Your task to perform on an android device: open app "DoorDash - Dasher" (install if not already installed), go to login, and select forgot password Image 0: 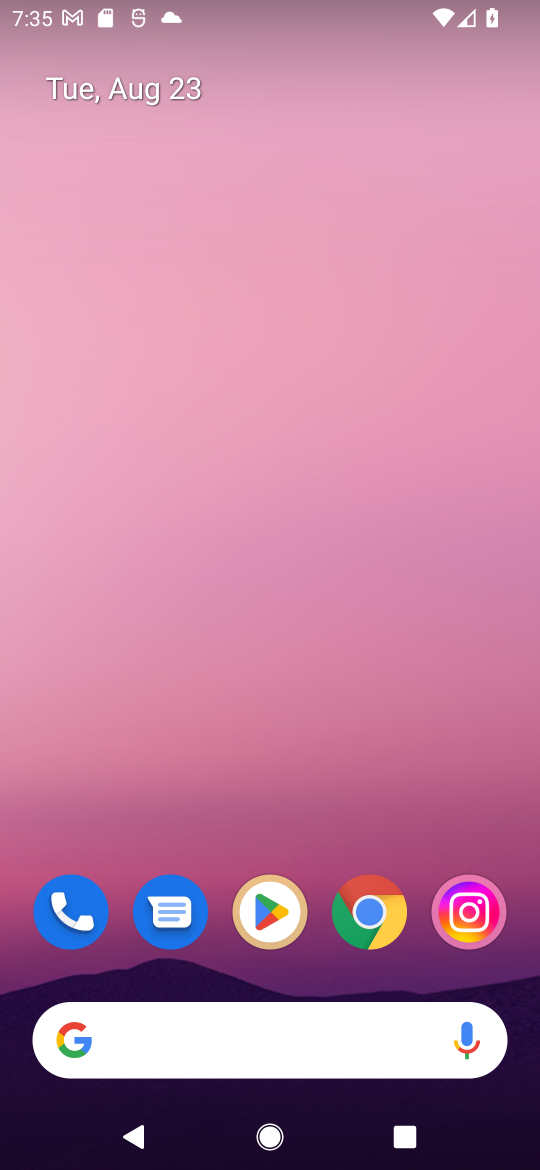
Step 0: click (265, 911)
Your task to perform on an android device: open app "DoorDash - Dasher" (install if not already installed), go to login, and select forgot password Image 1: 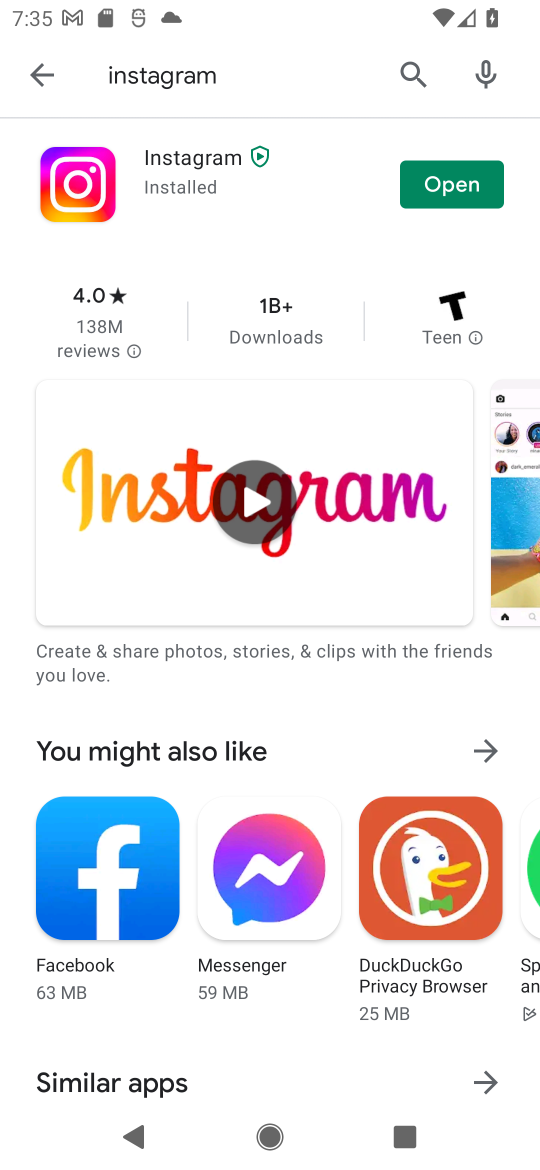
Step 1: click (408, 69)
Your task to perform on an android device: open app "DoorDash - Dasher" (install if not already installed), go to login, and select forgot password Image 2: 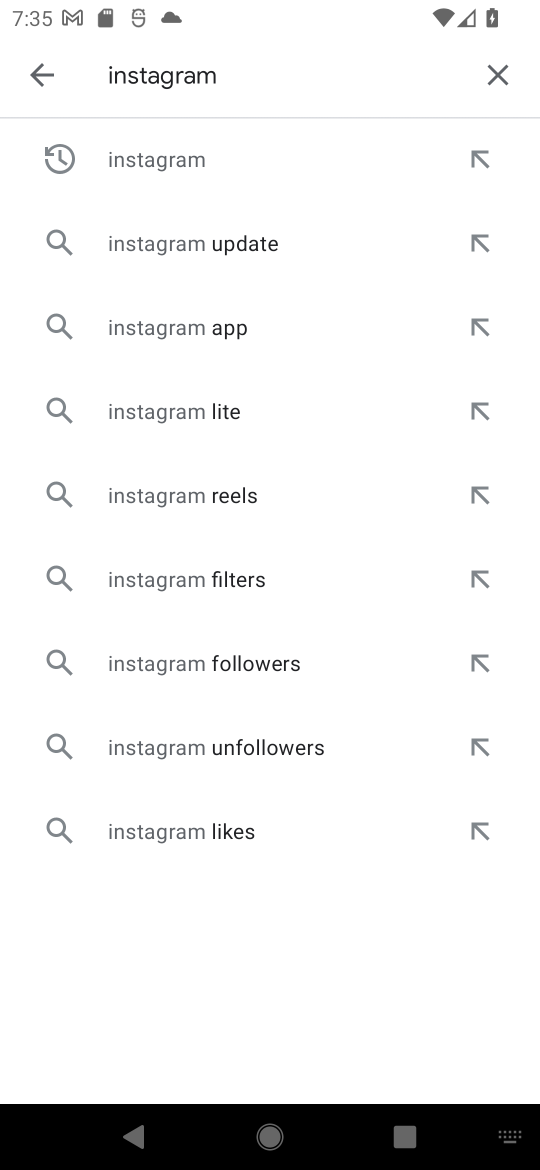
Step 2: click (502, 60)
Your task to perform on an android device: open app "DoorDash - Dasher" (install if not already installed), go to login, and select forgot password Image 3: 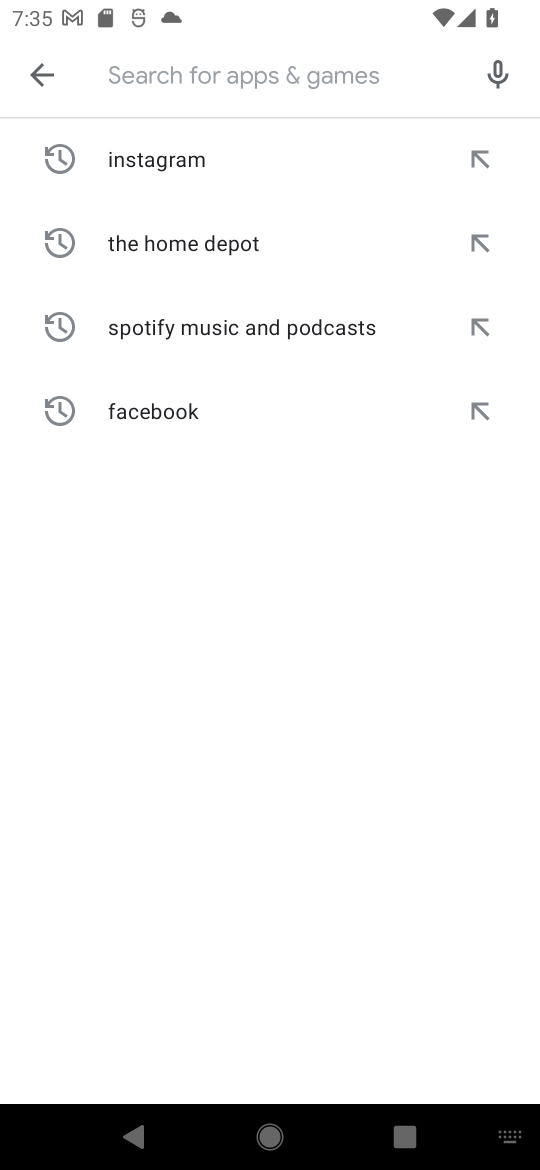
Step 3: type "DoorDash"
Your task to perform on an android device: open app "DoorDash - Dasher" (install if not already installed), go to login, and select forgot password Image 4: 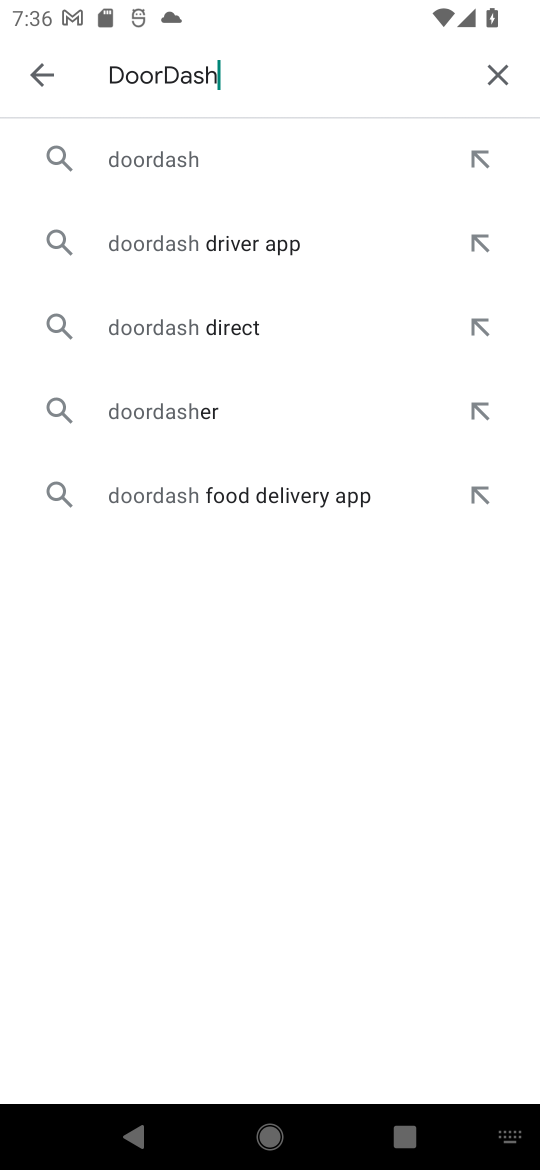
Step 4: type "- Dasher "
Your task to perform on an android device: open app "DoorDash - Dasher" (install if not already installed), go to login, and select forgot password Image 5: 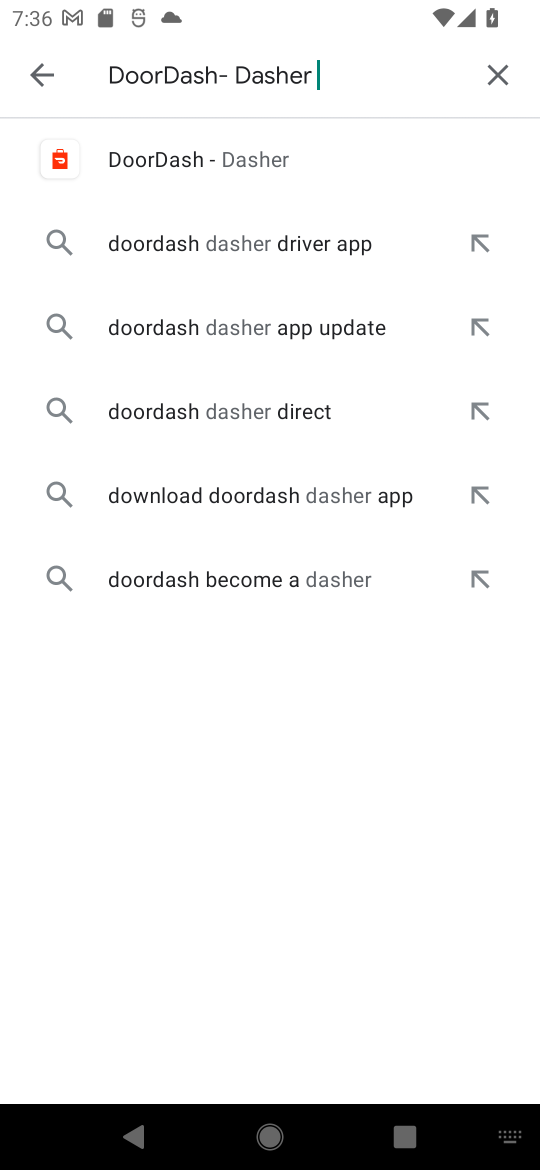
Step 5: click (256, 154)
Your task to perform on an android device: open app "DoorDash - Dasher" (install if not already installed), go to login, and select forgot password Image 6: 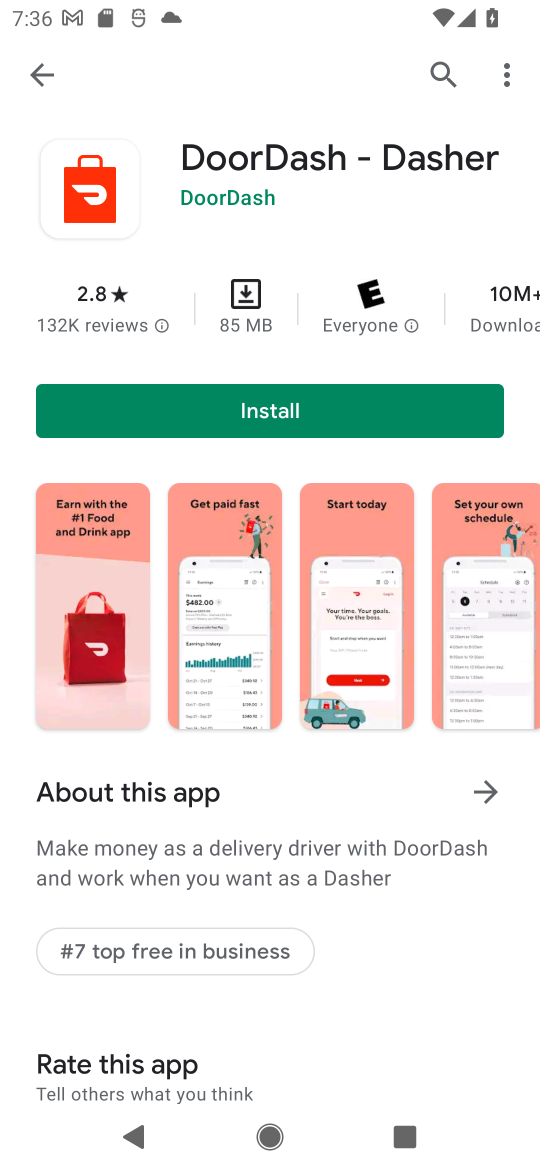
Step 6: click (269, 417)
Your task to perform on an android device: open app "DoorDash - Dasher" (install if not already installed), go to login, and select forgot password Image 7: 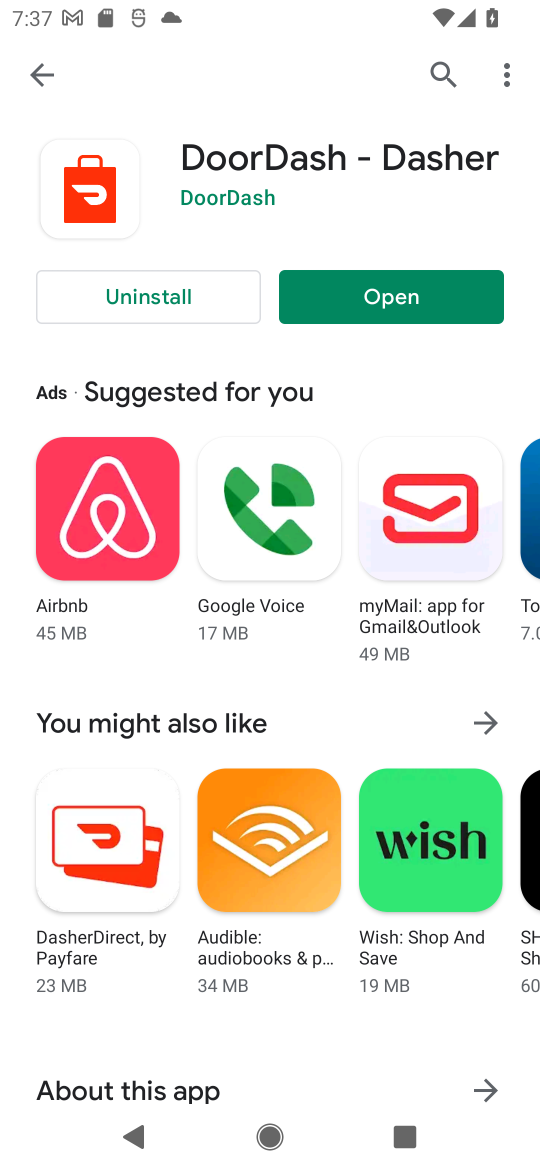
Step 7: click (377, 301)
Your task to perform on an android device: open app "DoorDash - Dasher" (install if not already installed), go to login, and select forgot password Image 8: 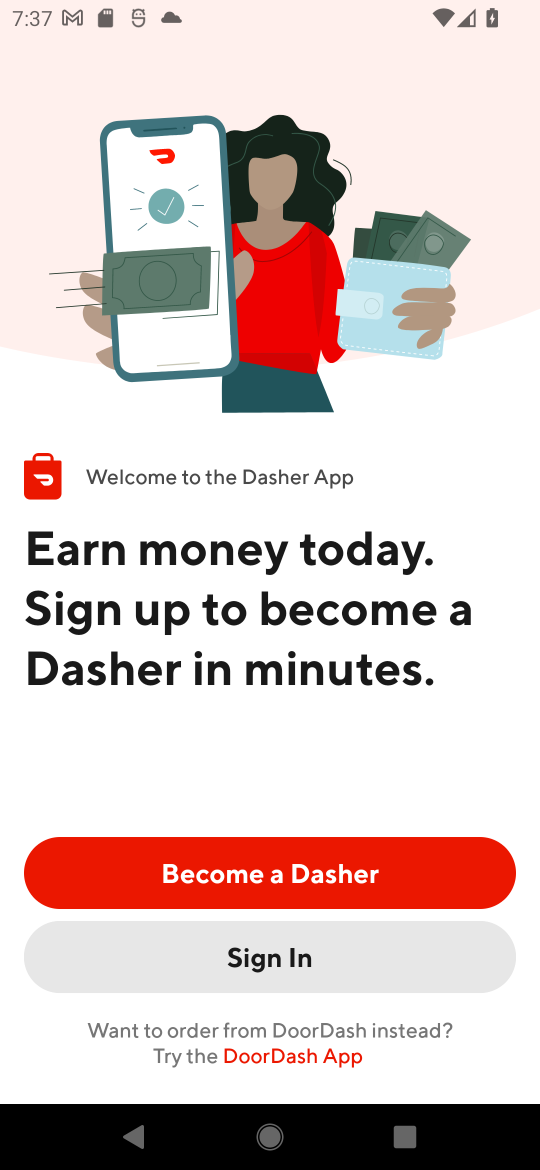
Step 8: click (262, 944)
Your task to perform on an android device: open app "DoorDash - Dasher" (install if not already installed), go to login, and select forgot password Image 9: 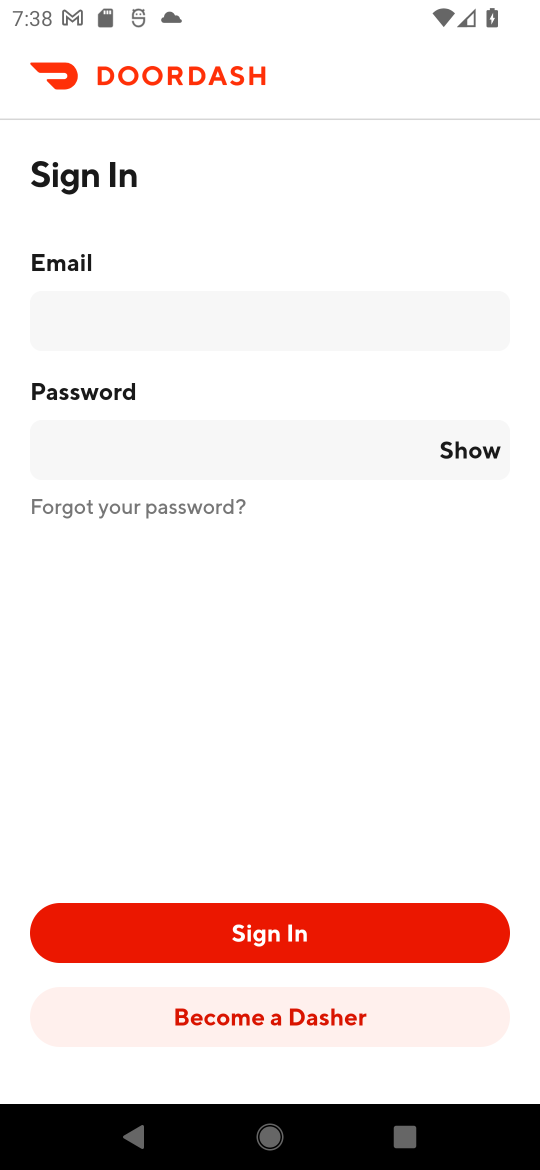
Step 9: click (143, 513)
Your task to perform on an android device: open app "DoorDash - Dasher" (install if not already installed), go to login, and select forgot password Image 10: 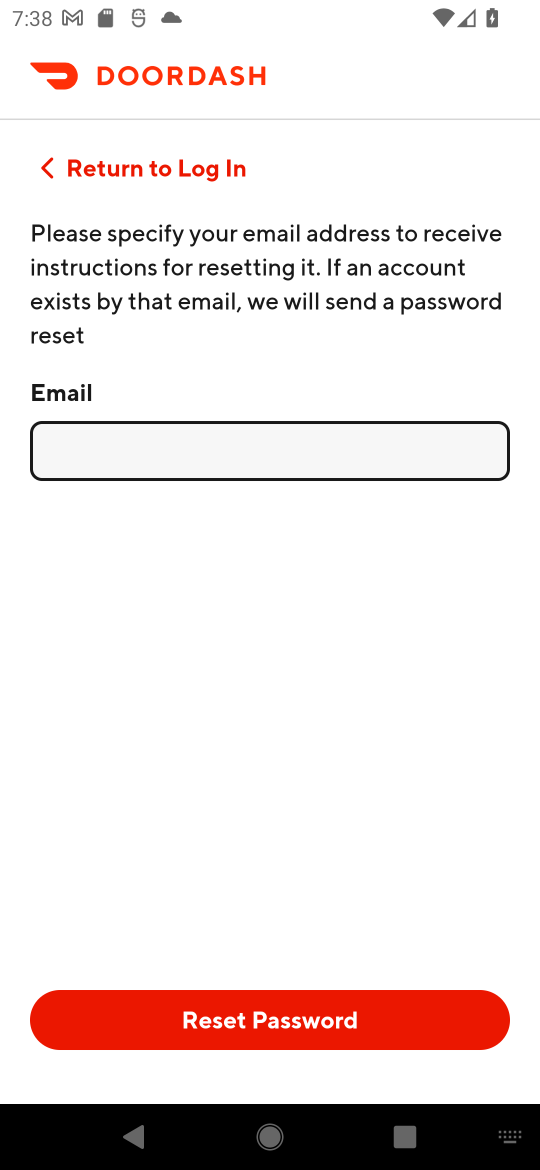
Step 10: task complete